Your task to perform on an android device: Go to internet settings Image 0: 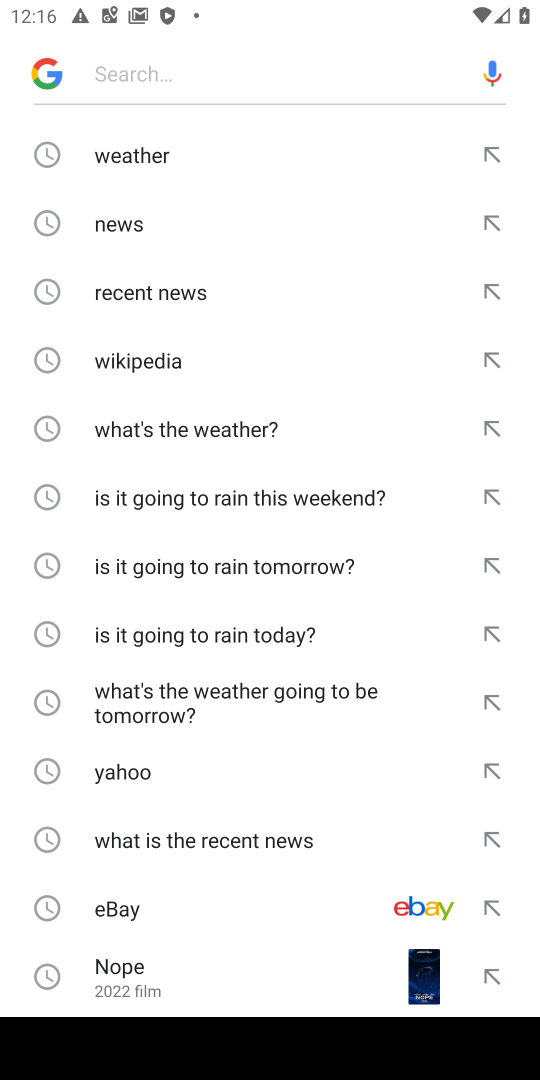
Step 0: press home button
Your task to perform on an android device: Go to internet settings Image 1: 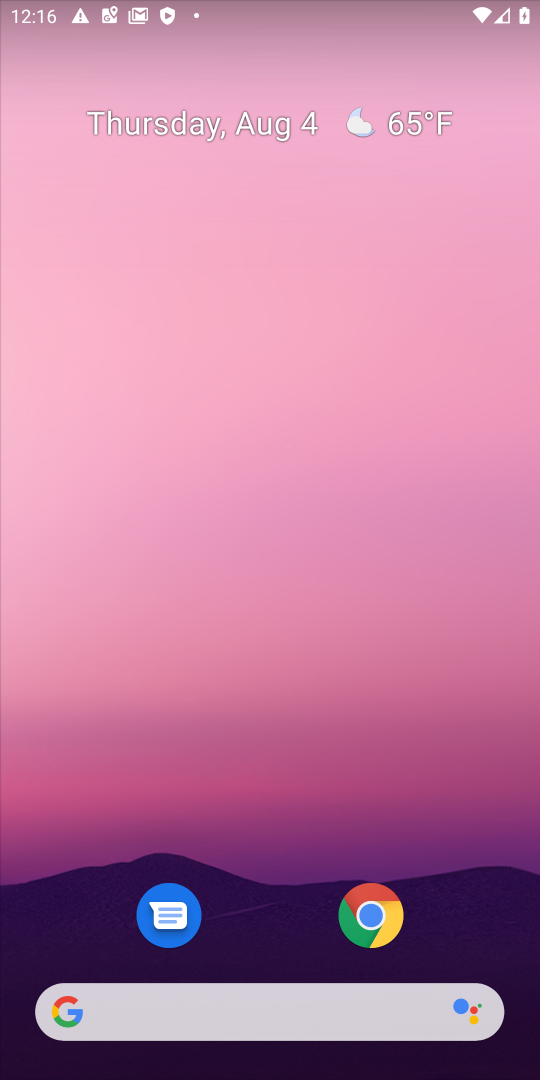
Step 1: drag from (250, 948) to (235, 6)
Your task to perform on an android device: Go to internet settings Image 2: 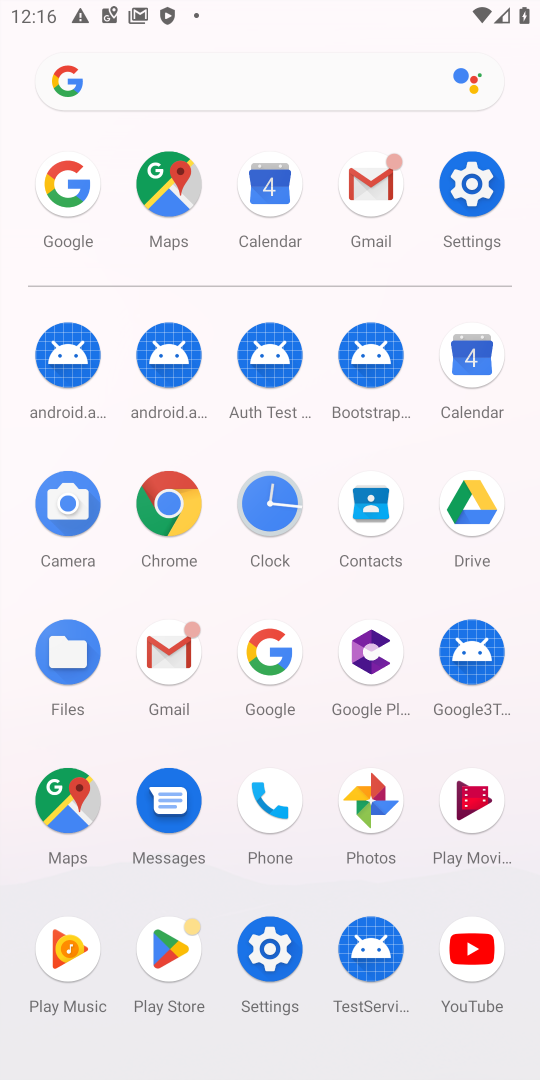
Step 2: click (468, 190)
Your task to perform on an android device: Go to internet settings Image 3: 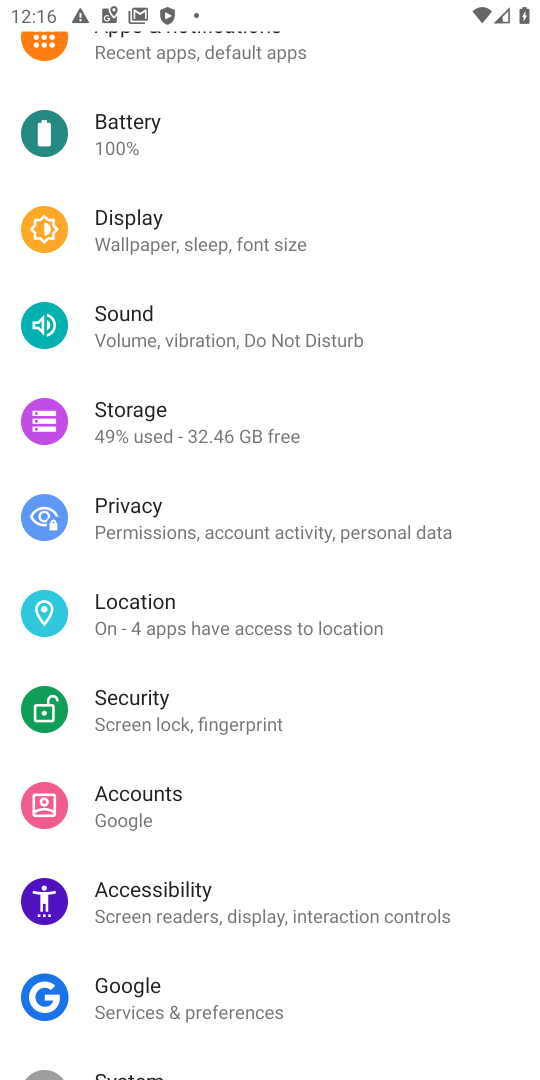
Step 3: drag from (182, 112) to (214, 577)
Your task to perform on an android device: Go to internet settings Image 4: 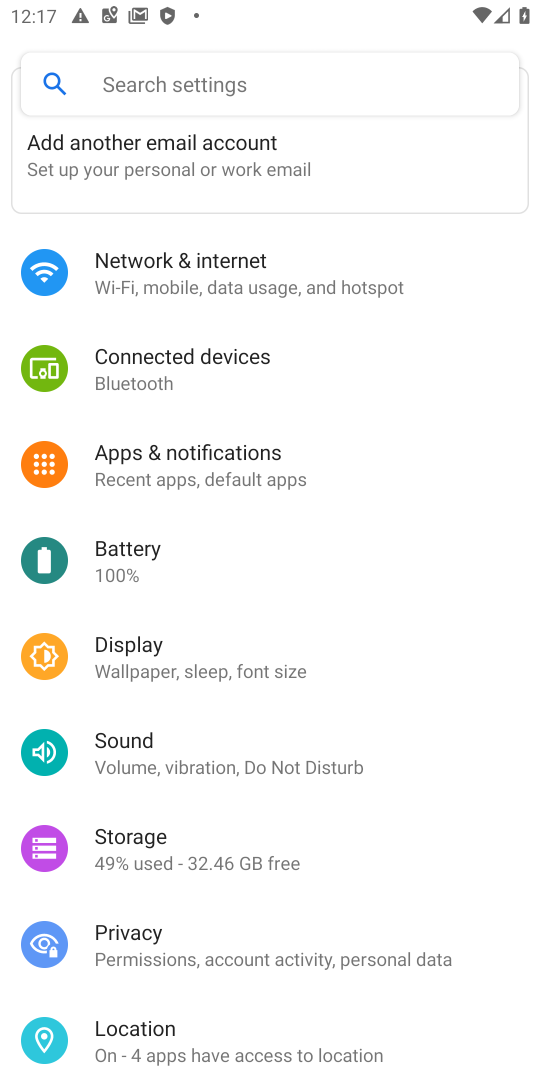
Step 4: click (201, 287)
Your task to perform on an android device: Go to internet settings Image 5: 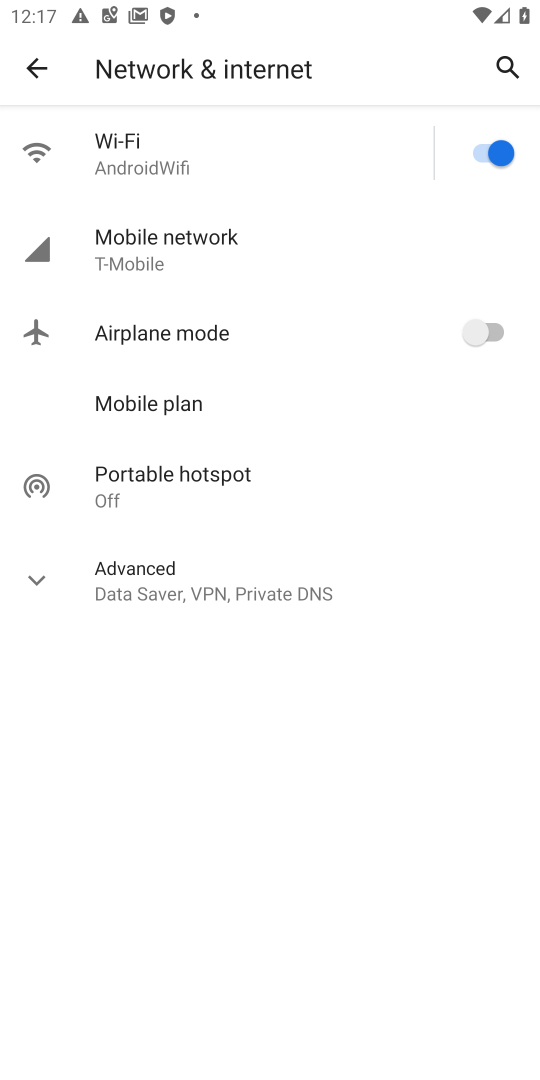
Step 5: task complete